Your task to perform on an android device: turn on airplane mode Image 0: 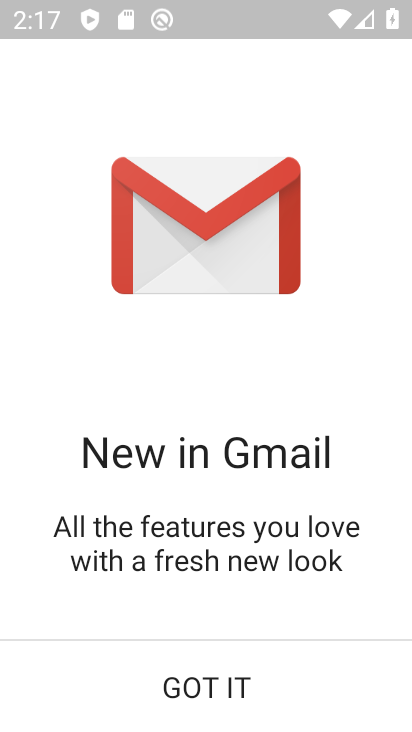
Step 0: click (192, 671)
Your task to perform on an android device: turn on airplane mode Image 1: 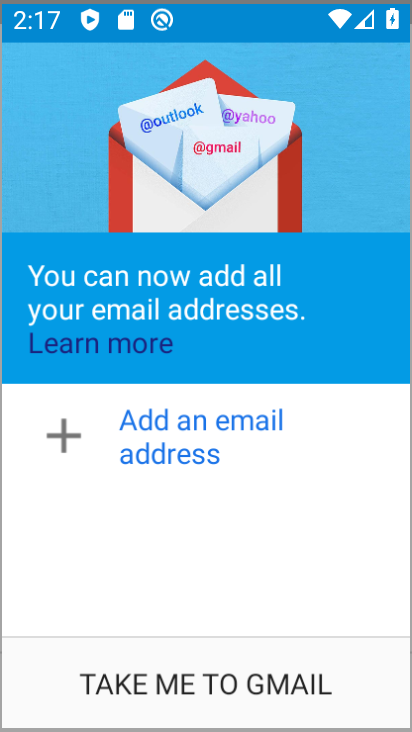
Step 1: press back button
Your task to perform on an android device: turn on airplane mode Image 2: 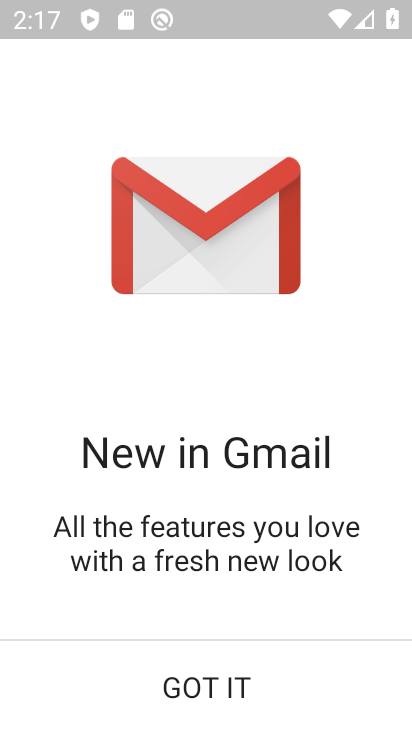
Step 2: press back button
Your task to perform on an android device: turn on airplane mode Image 3: 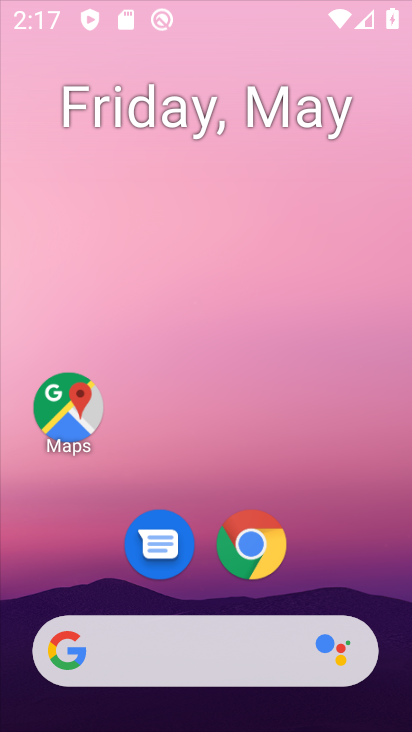
Step 3: drag from (311, 26) to (295, 577)
Your task to perform on an android device: turn on airplane mode Image 4: 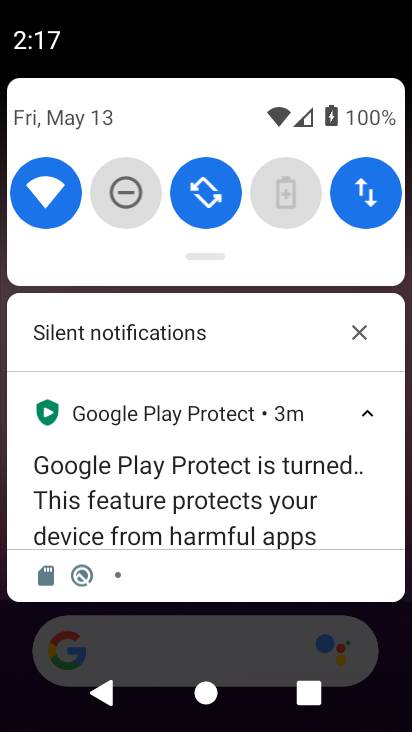
Step 4: drag from (207, 238) to (177, 681)
Your task to perform on an android device: turn on airplane mode Image 5: 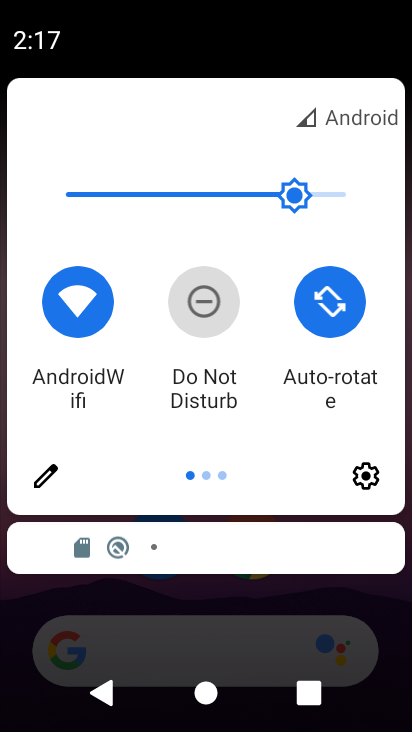
Step 5: drag from (352, 340) to (0, 300)
Your task to perform on an android device: turn on airplane mode Image 6: 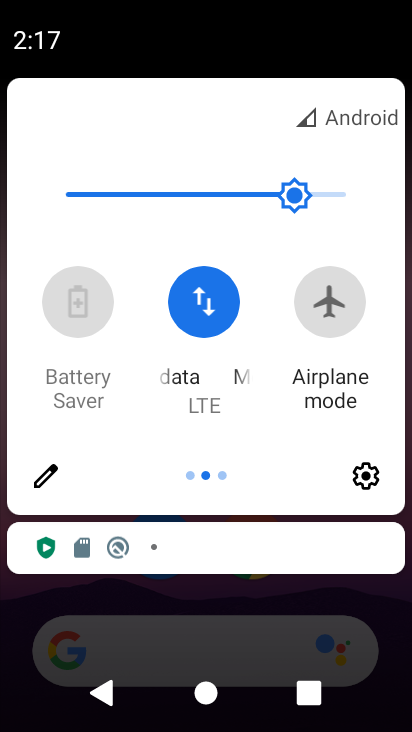
Step 6: click (319, 306)
Your task to perform on an android device: turn on airplane mode Image 7: 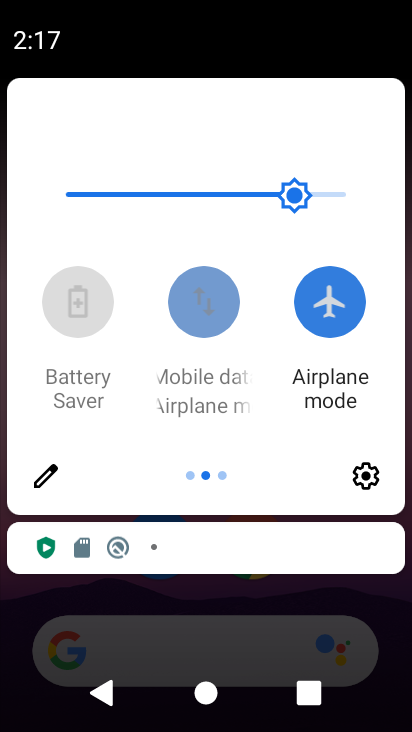
Step 7: task complete